Your task to perform on an android device: turn off picture-in-picture Image 0: 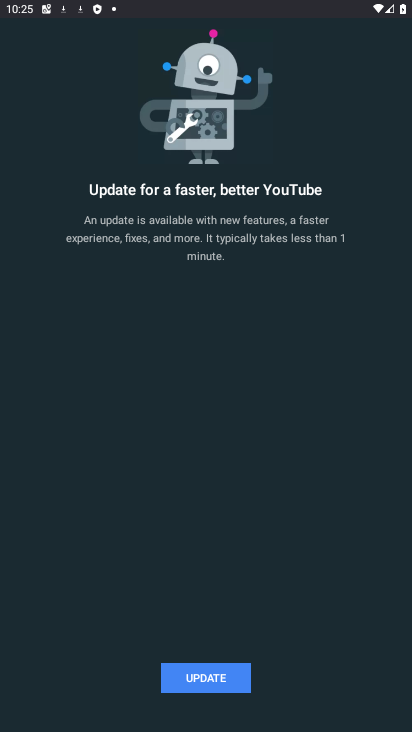
Step 0: press home button
Your task to perform on an android device: turn off picture-in-picture Image 1: 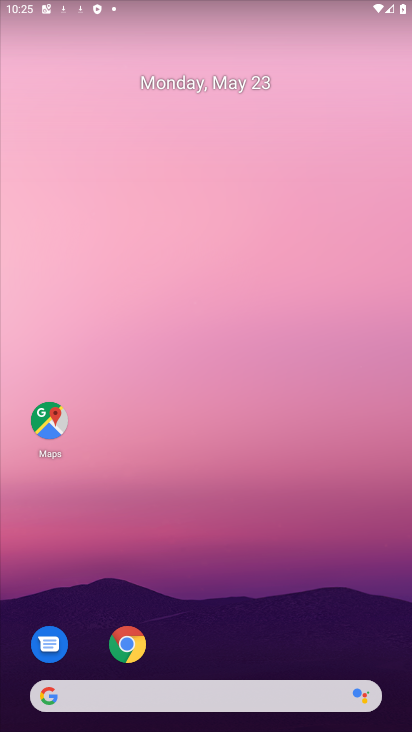
Step 1: drag from (233, 719) to (127, 168)
Your task to perform on an android device: turn off picture-in-picture Image 2: 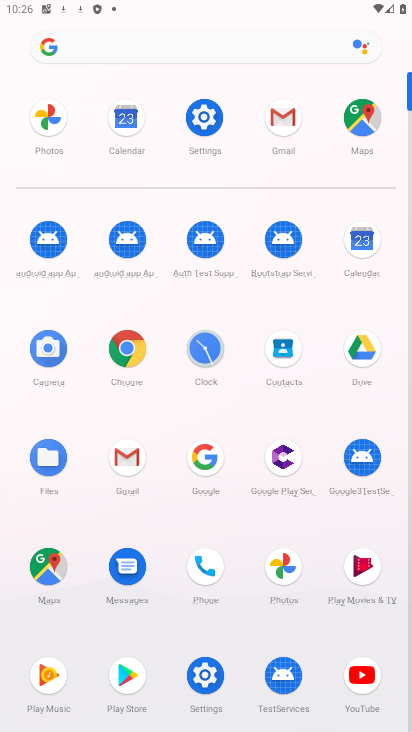
Step 2: click (211, 128)
Your task to perform on an android device: turn off picture-in-picture Image 3: 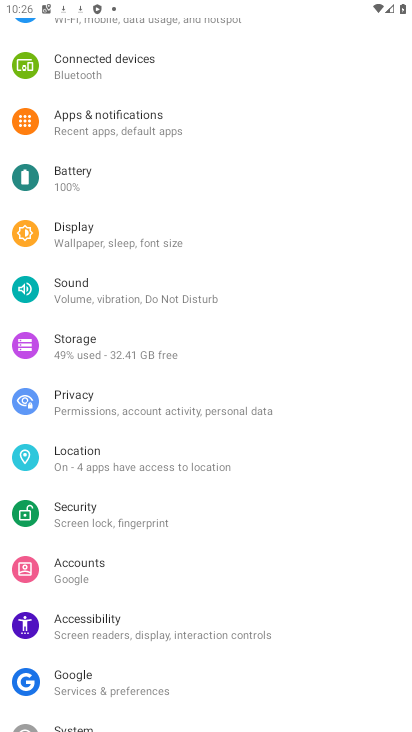
Step 3: drag from (224, 188) to (268, 286)
Your task to perform on an android device: turn off picture-in-picture Image 4: 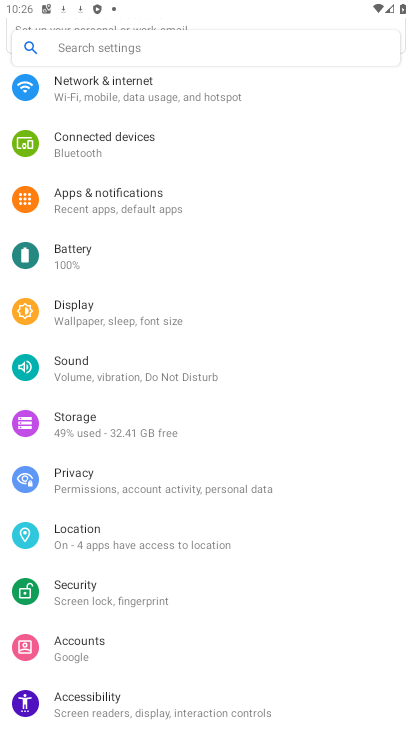
Step 4: click (158, 50)
Your task to perform on an android device: turn off picture-in-picture Image 5: 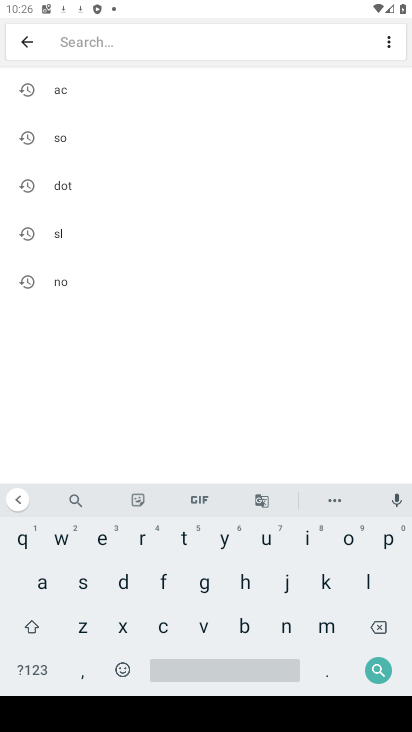
Step 5: click (386, 548)
Your task to perform on an android device: turn off picture-in-picture Image 6: 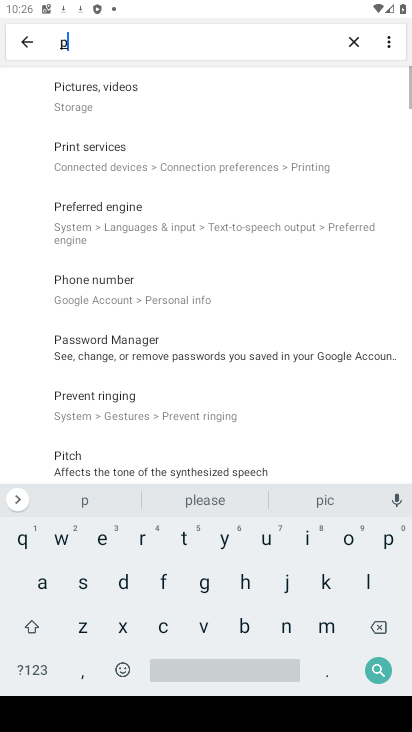
Step 6: click (307, 543)
Your task to perform on an android device: turn off picture-in-picture Image 7: 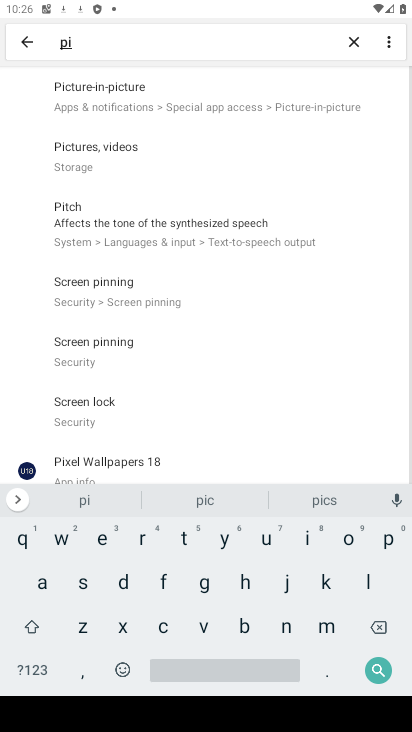
Step 7: click (134, 105)
Your task to perform on an android device: turn off picture-in-picture Image 8: 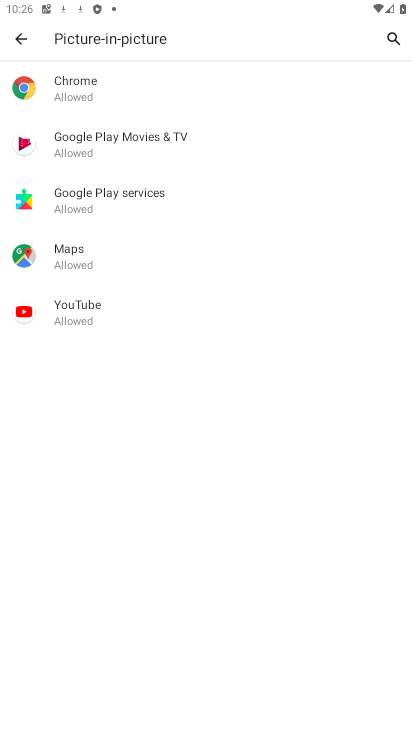
Step 8: task complete